Your task to perform on an android device: empty trash in google photos Image 0: 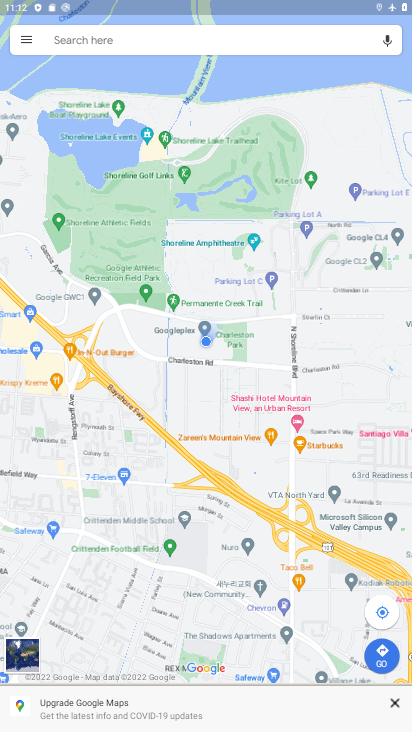
Step 0: press home button
Your task to perform on an android device: empty trash in google photos Image 1: 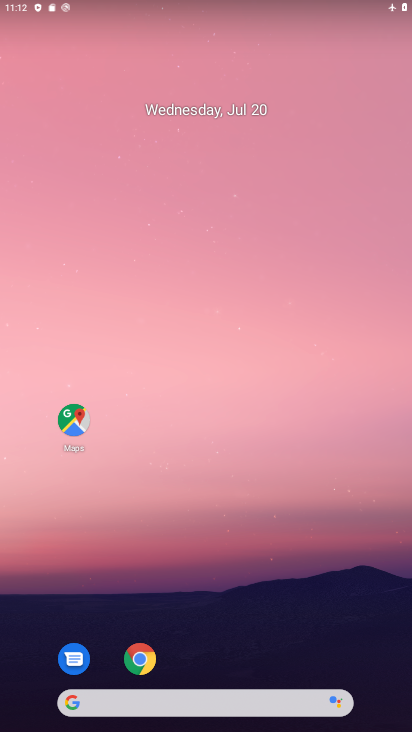
Step 1: drag from (243, 641) to (260, 32)
Your task to perform on an android device: empty trash in google photos Image 2: 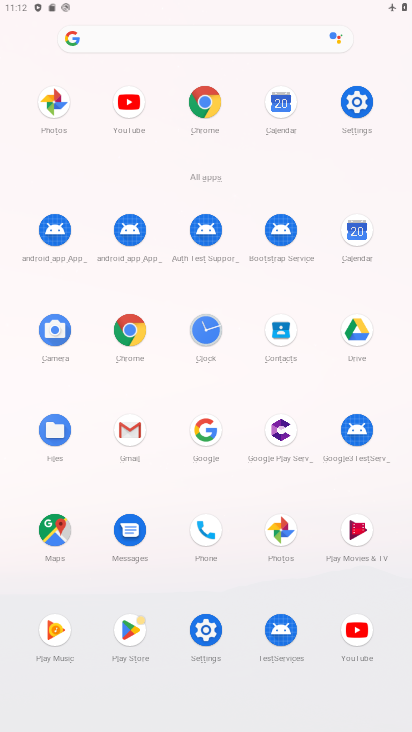
Step 2: click (292, 543)
Your task to perform on an android device: empty trash in google photos Image 3: 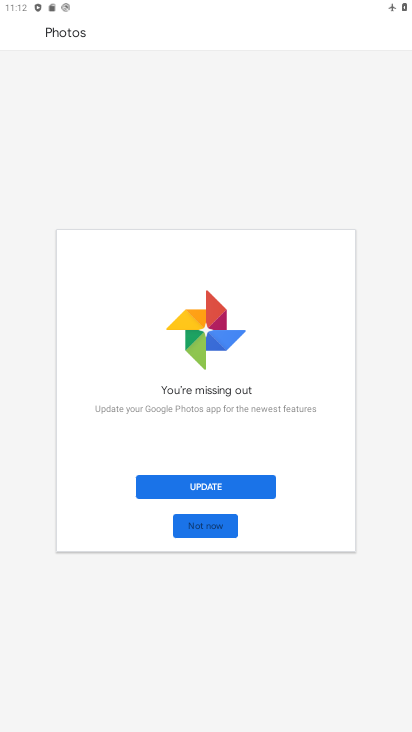
Step 3: click (207, 528)
Your task to perform on an android device: empty trash in google photos Image 4: 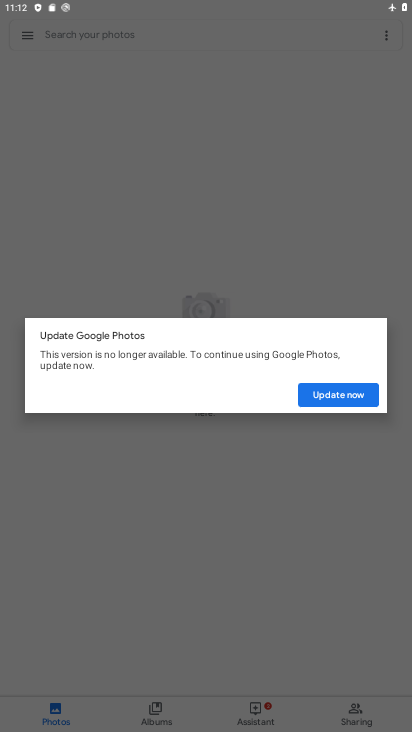
Step 4: click (359, 395)
Your task to perform on an android device: empty trash in google photos Image 5: 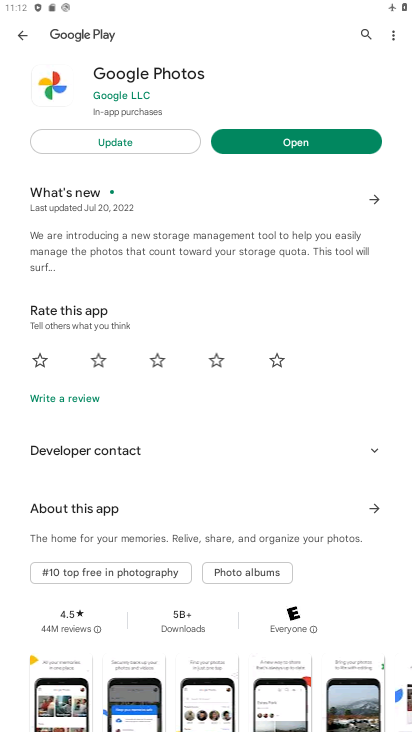
Step 5: click (246, 145)
Your task to perform on an android device: empty trash in google photos Image 6: 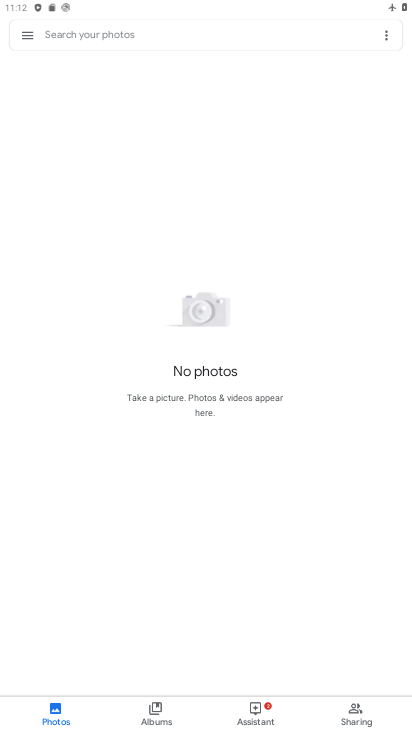
Step 6: click (23, 15)
Your task to perform on an android device: empty trash in google photos Image 7: 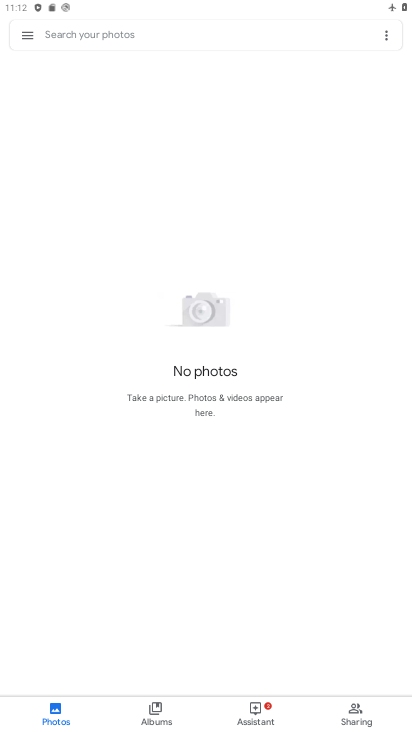
Step 7: click (23, 33)
Your task to perform on an android device: empty trash in google photos Image 8: 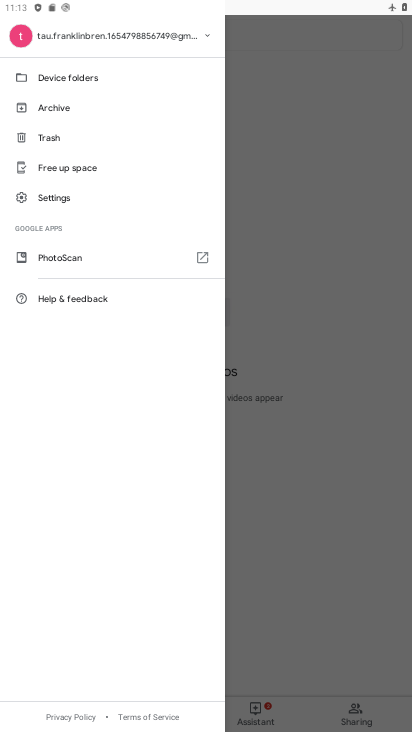
Step 8: click (54, 142)
Your task to perform on an android device: empty trash in google photos Image 9: 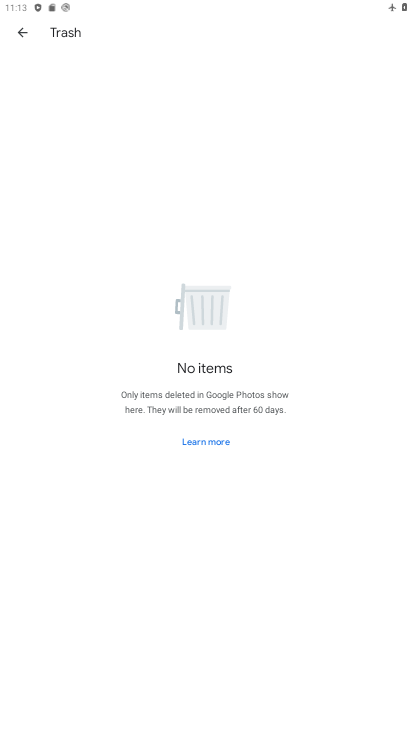
Step 9: task complete